Your task to perform on an android device: Open sound settings Image 0: 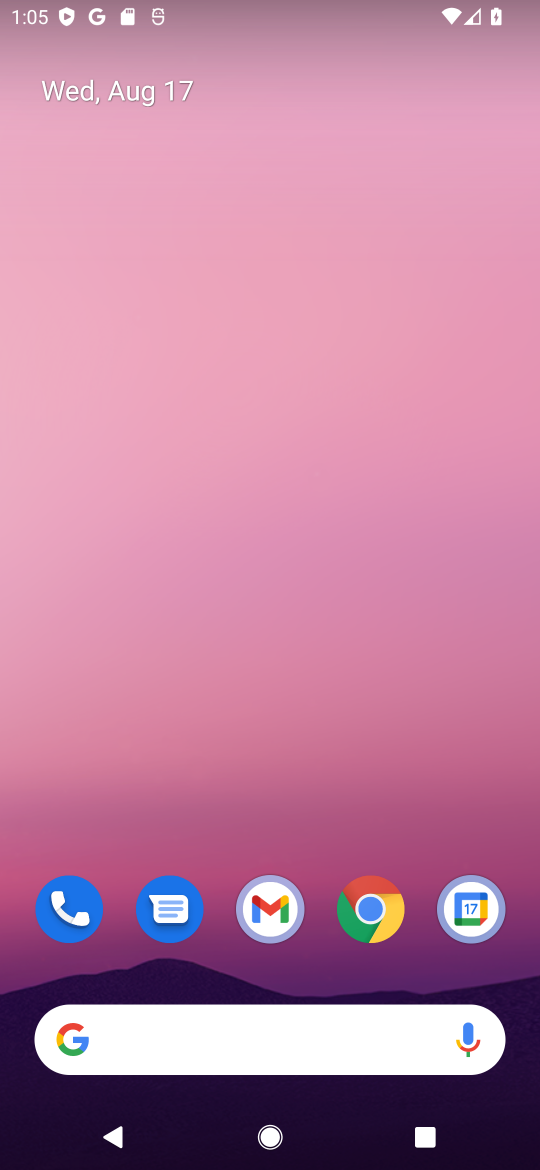
Step 0: drag from (280, 822) to (242, 167)
Your task to perform on an android device: Open sound settings Image 1: 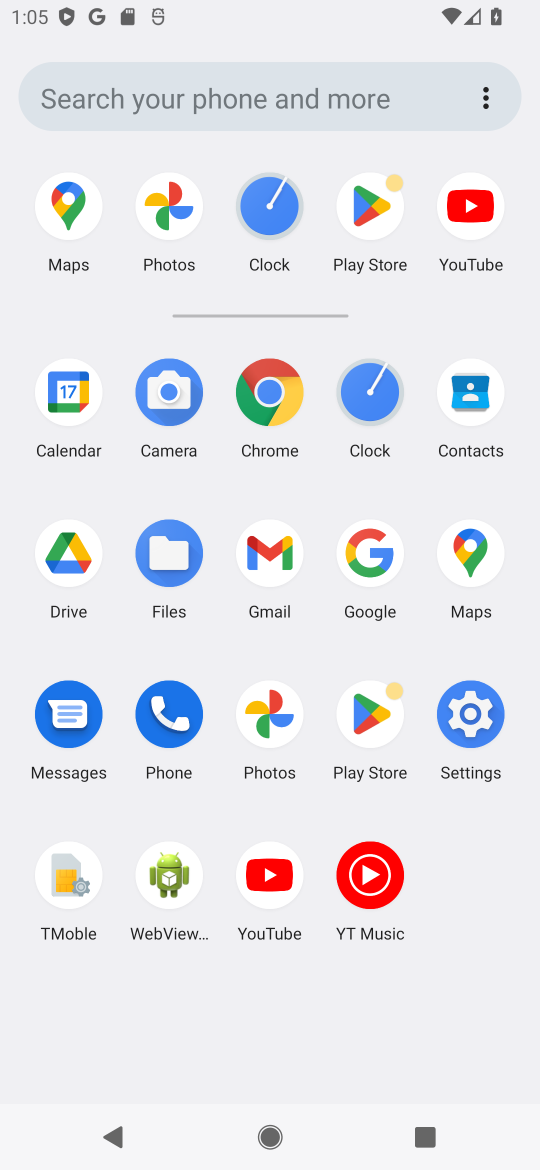
Step 1: click (469, 716)
Your task to perform on an android device: Open sound settings Image 2: 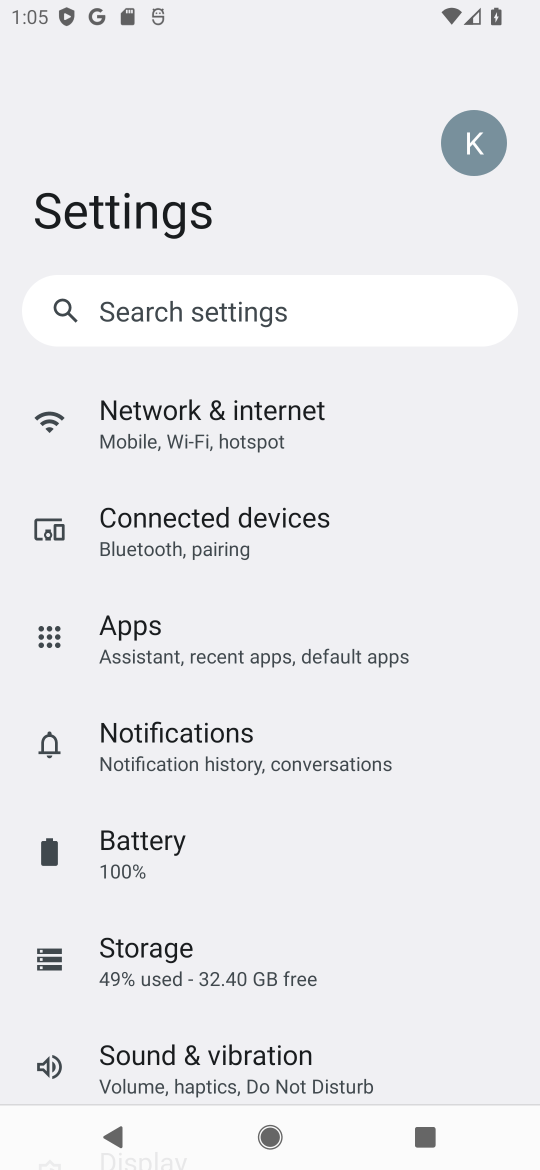
Step 2: drag from (369, 932) to (349, 419)
Your task to perform on an android device: Open sound settings Image 3: 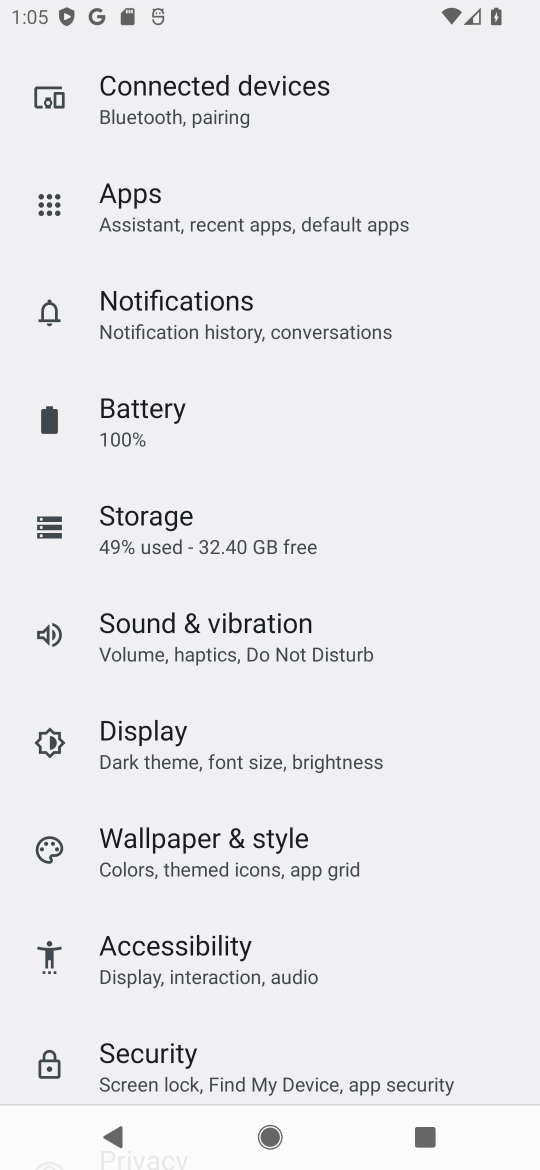
Step 3: click (158, 622)
Your task to perform on an android device: Open sound settings Image 4: 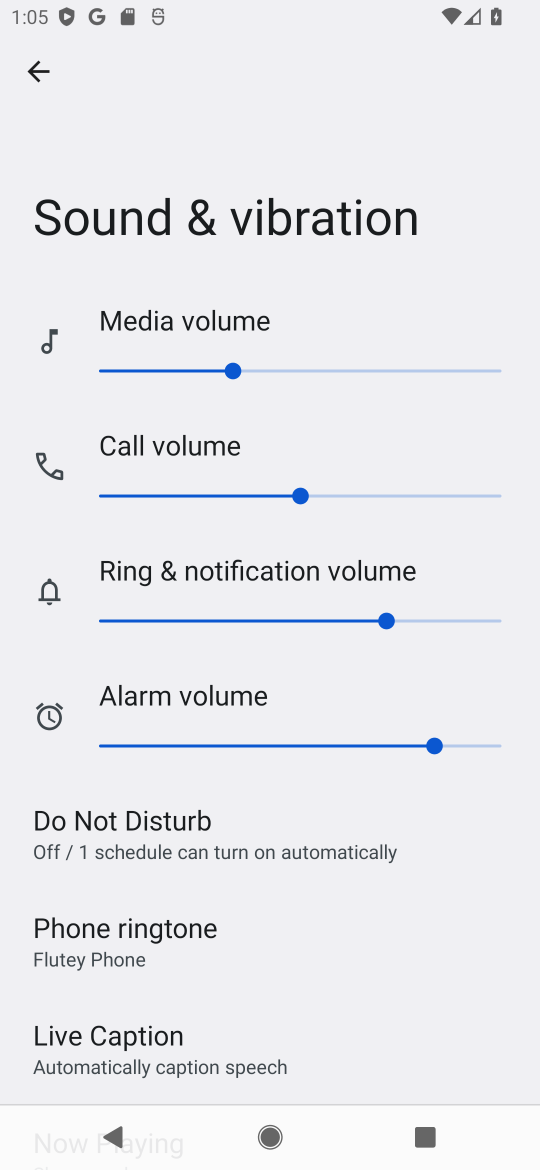
Step 4: task complete